Your task to perform on an android device: open app "Yahoo Mail" (install if not already installed) Image 0: 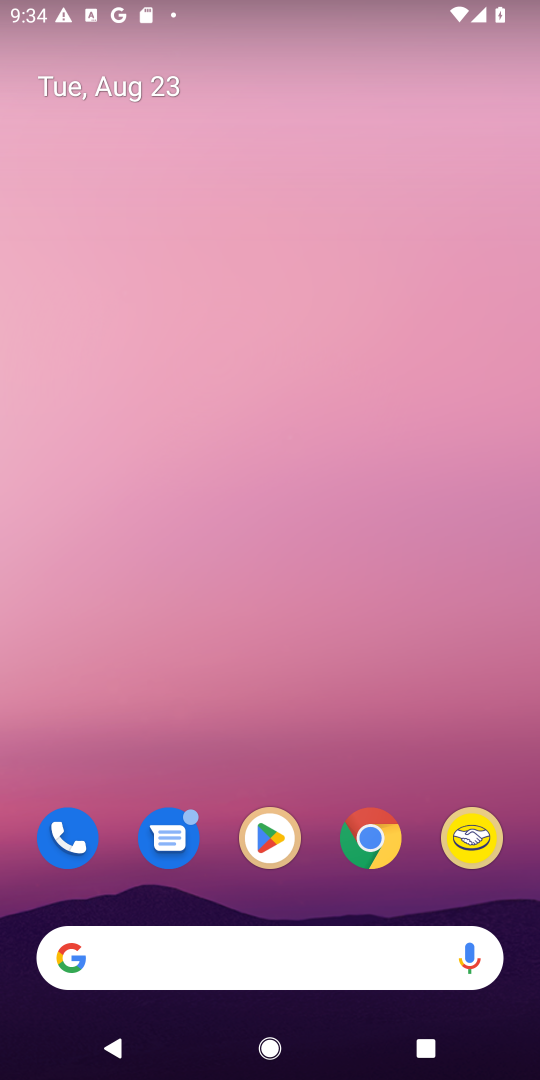
Step 0: click (273, 821)
Your task to perform on an android device: open app "Yahoo Mail" (install if not already installed) Image 1: 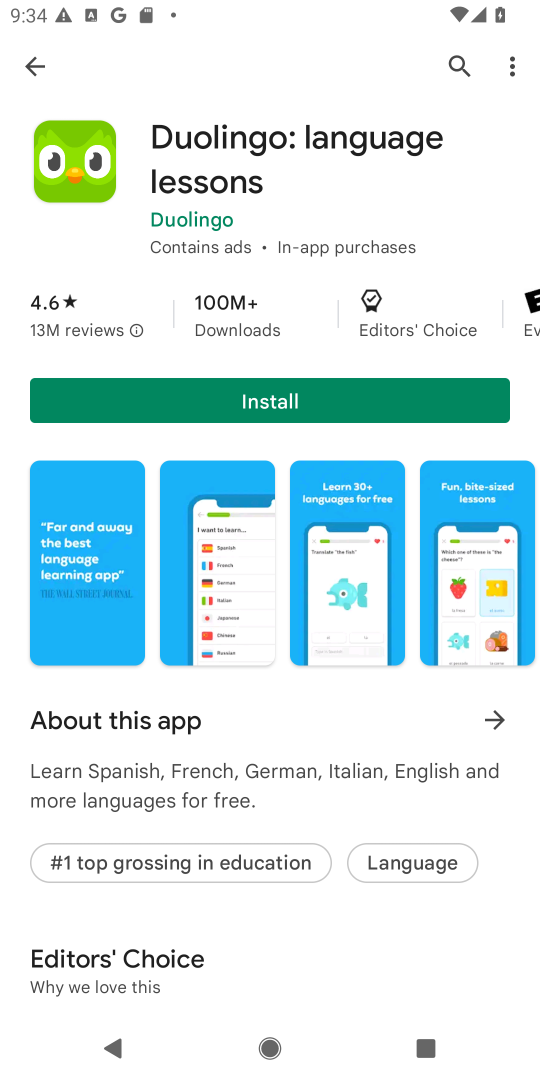
Step 1: click (464, 65)
Your task to perform on an android device: open app "Yahoo Mail" (install if not already installed) Image 2: 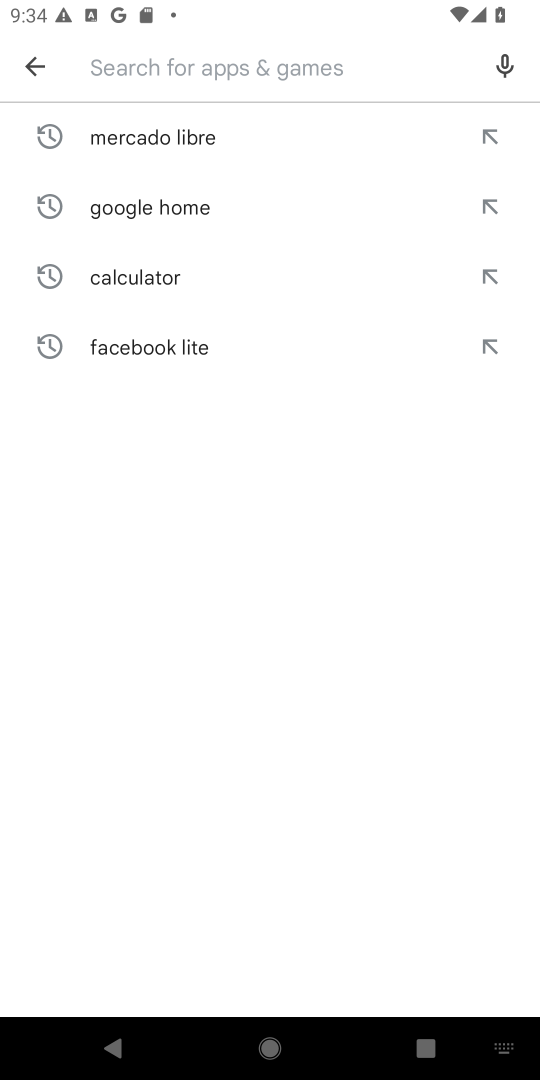
Step 2: type "Yahoo Mail"
Your task to perform on an android device: open app "Yahoo Mail" (install if not already installed) Image 3: 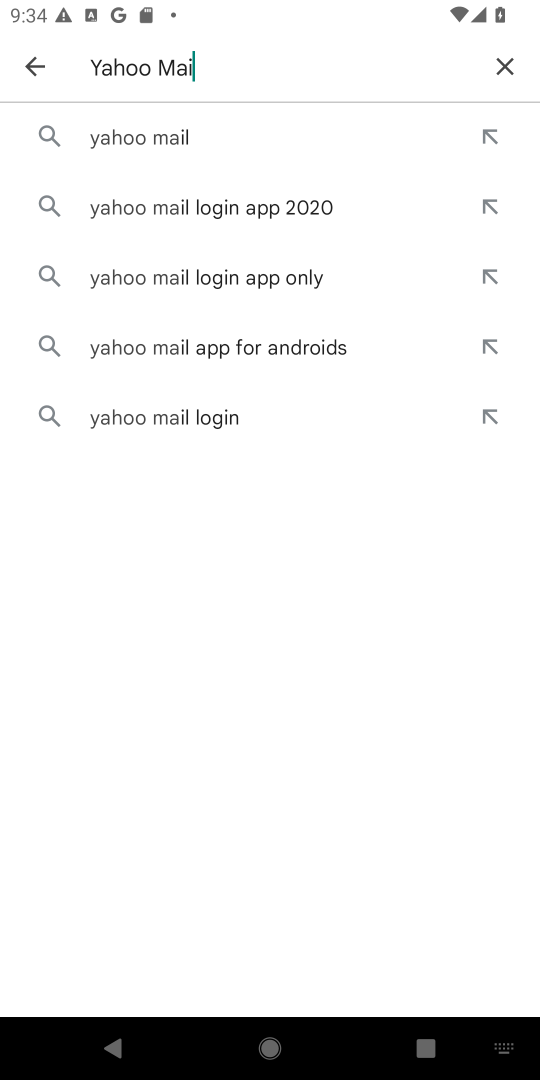
Step 3: type ""
Your task to perform on an android device: open app "Yahoo Mail" (install if not already installed) Image 4: 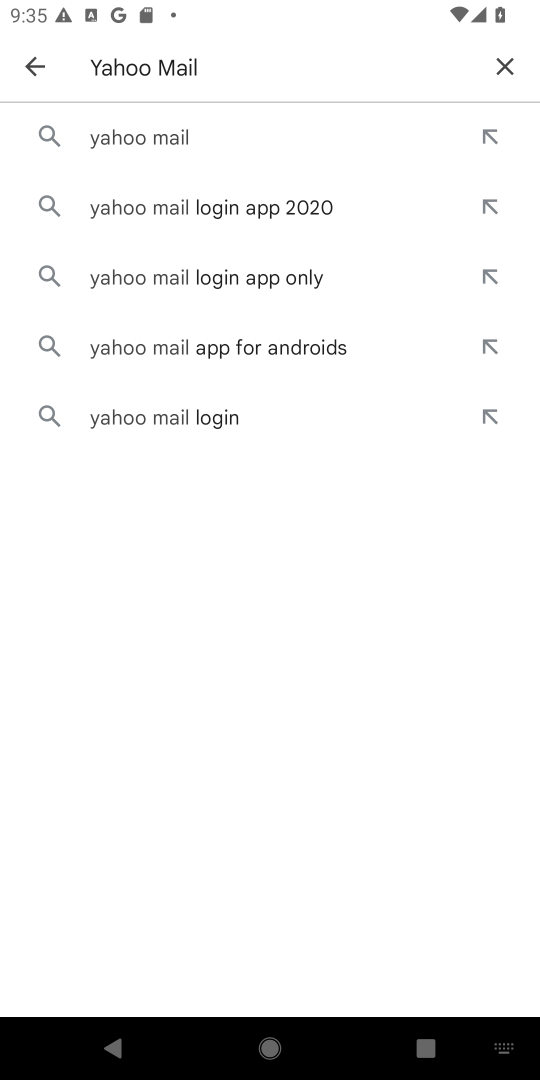
Step 4: click (123, 135)
Your task to perform on an android device: open app "Yahoo Mail" (install if not already installed) Image 5: 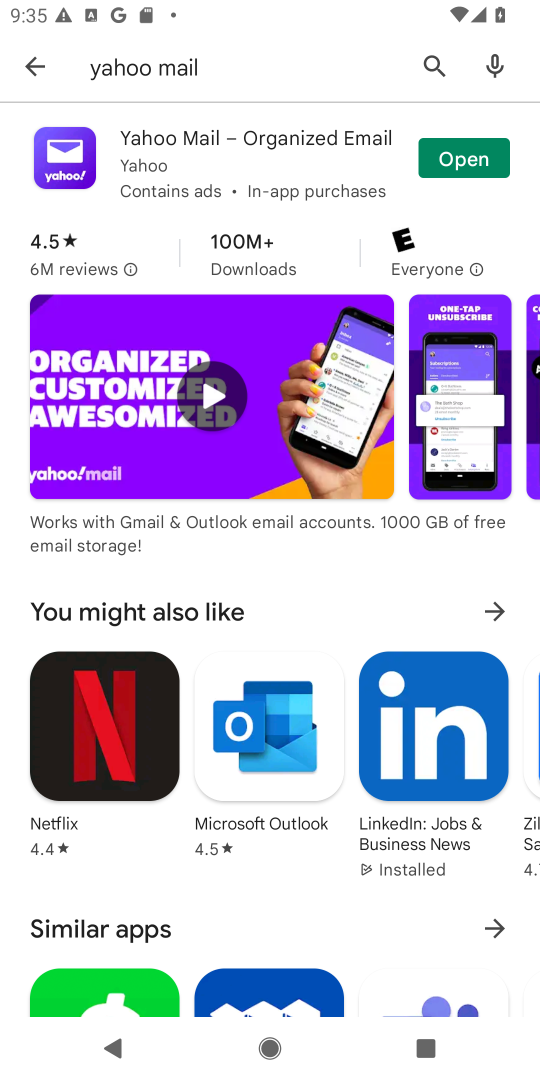
Step 5: click (432, 154)
Your task to perform on an android device: open app "Yahoo Mail" (install if not already installed) Image 6: 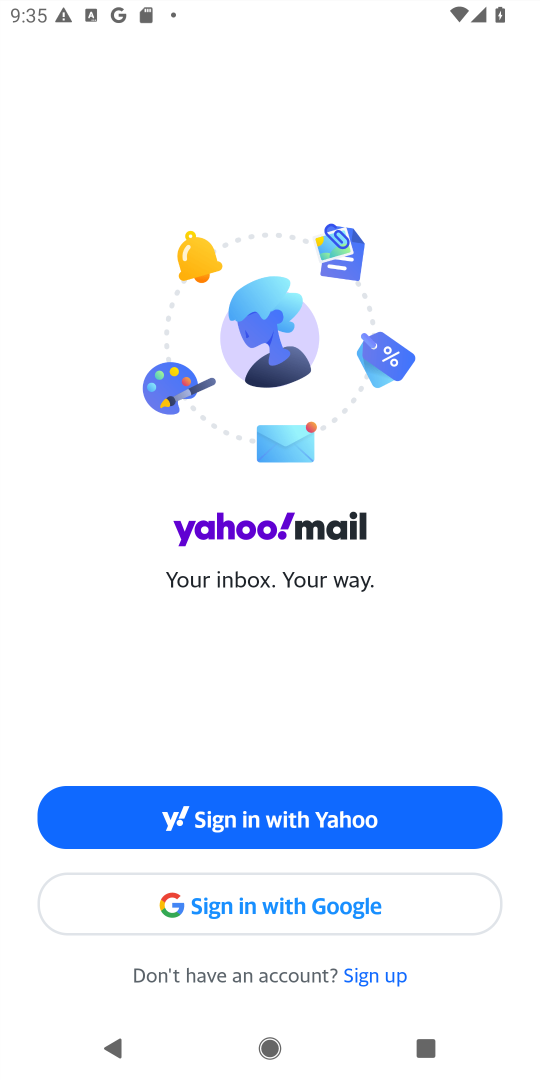
Step 6: task complete